Your task to perform on an android device: Open network settings Image 0: 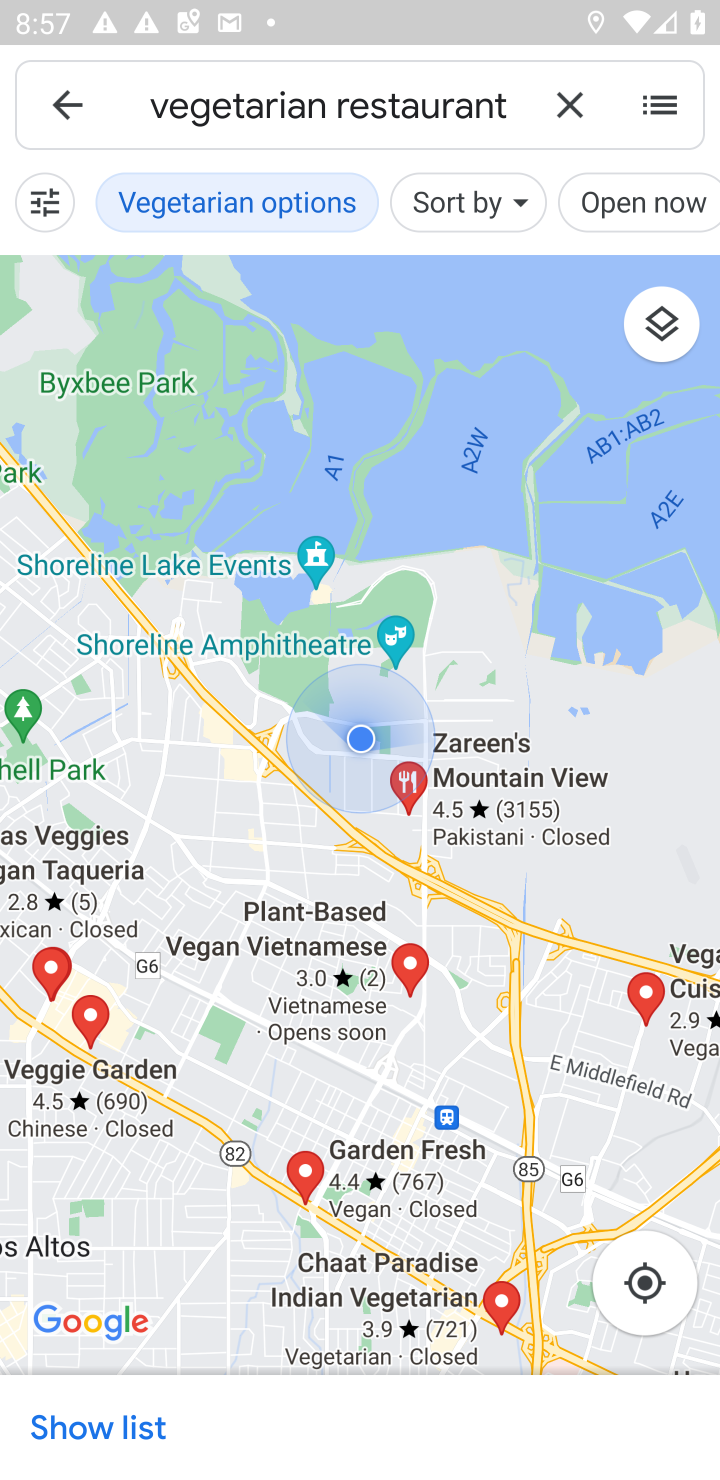
Step 0: task complete